Your task to perform on an android device: check storage Image 0: 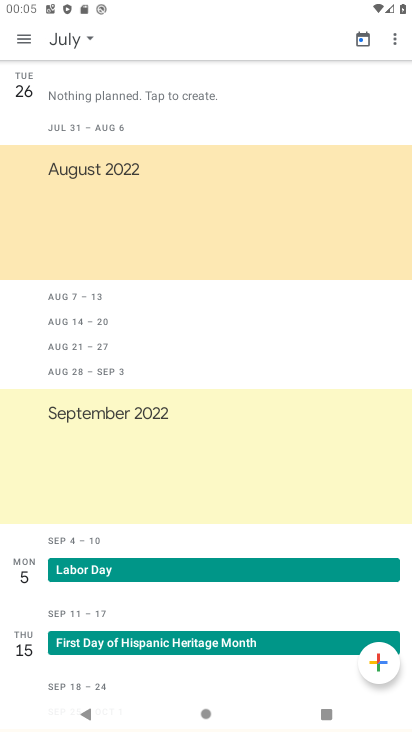
Step 0: press home button
Your task to perform on an android device: check storage Image 1: 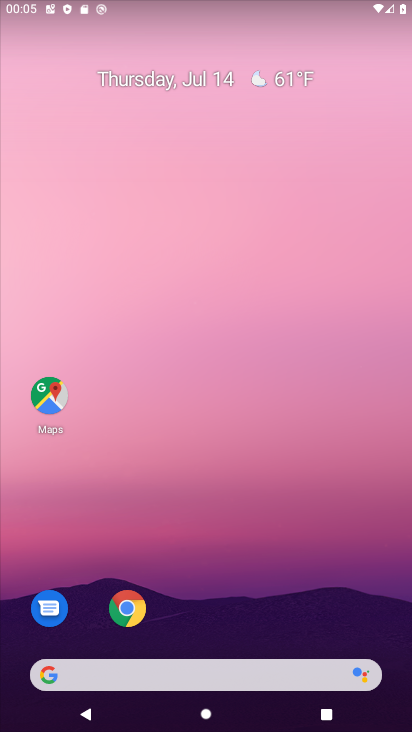
Step 1: drag from (228, 574) to (227, 169)
Your task to perform on an android device: check storage Image 2: 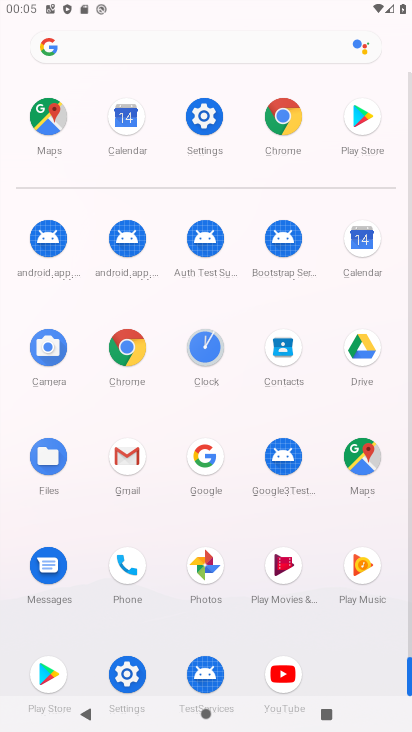
Step 2: drag from (219, 436) to (242, 248)
Your task to perform on an android device: check storage Image 3: 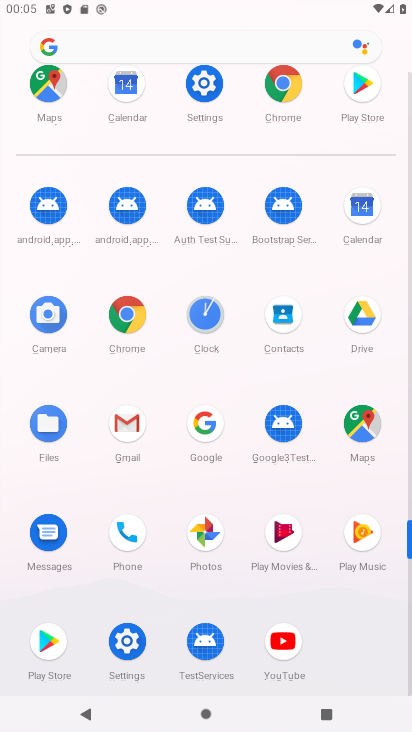
Step 3: drag from (152, 566) to (155, 324)
Your task to perform on an android device: check storage Image 4: 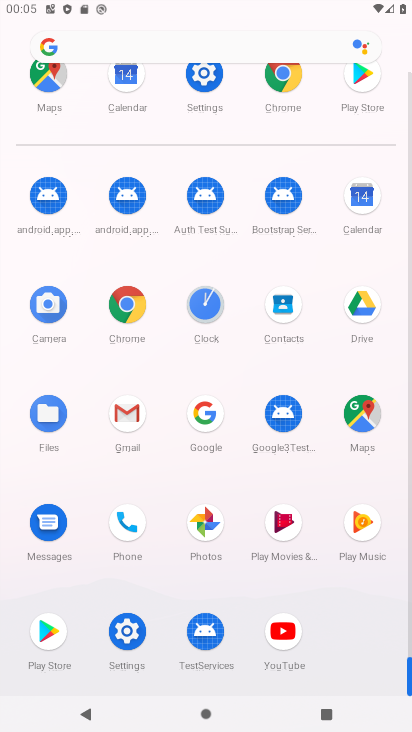
Step 4: drag from (149, 587) to (190, 180)
Your task to perform on an android device: check storage Image 5: 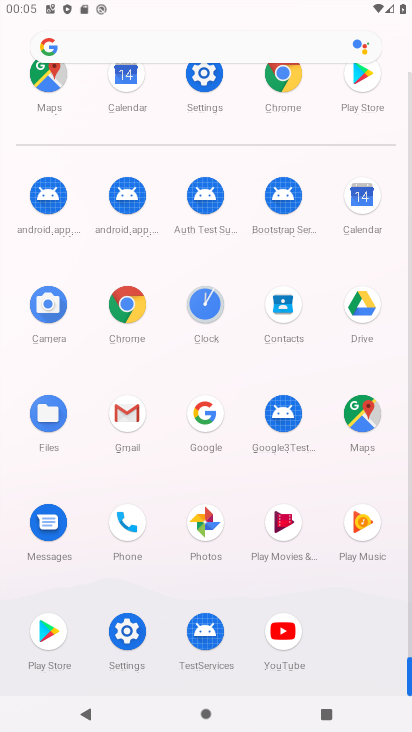
Step 5: drag from (178, 506) to (81, 289)
Your task to perform on an android device: check storage Image 6: 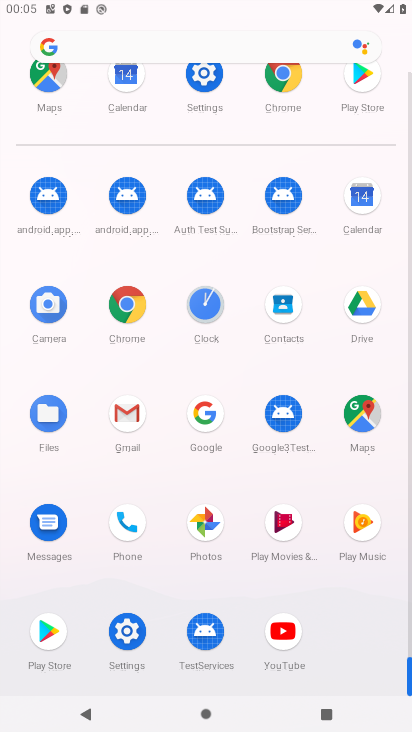
Step 6: click (203, 74)
Your task to perform on an android device: check storage Image 7: 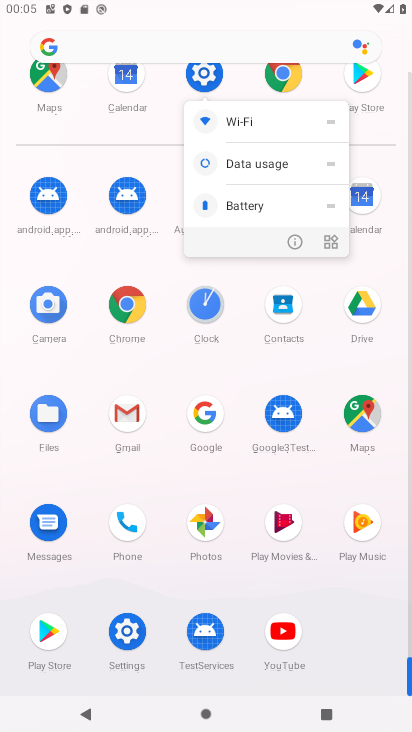
Step 7: click (294, 243)
Your task to perform on an android device: check storage Image 8: 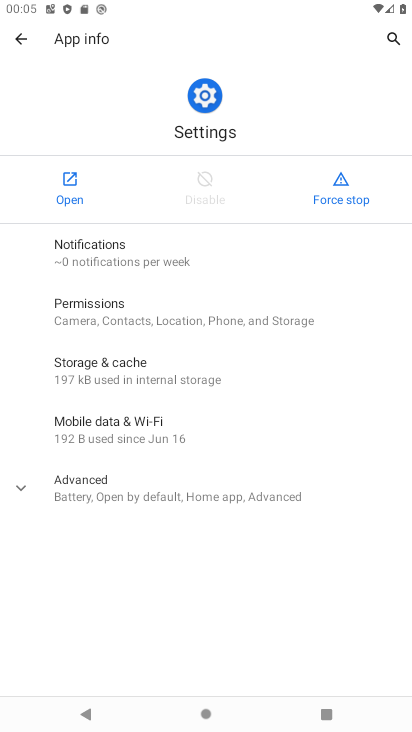
Step 8: click (72, 178)
Your task to perform on an android device: check storage Image 9: 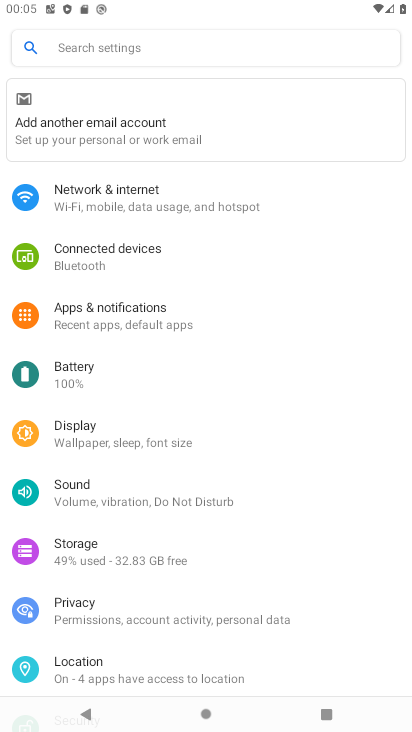
Step 9: click (117, 556)
Your task to perform on an android device: check storage Image 10: 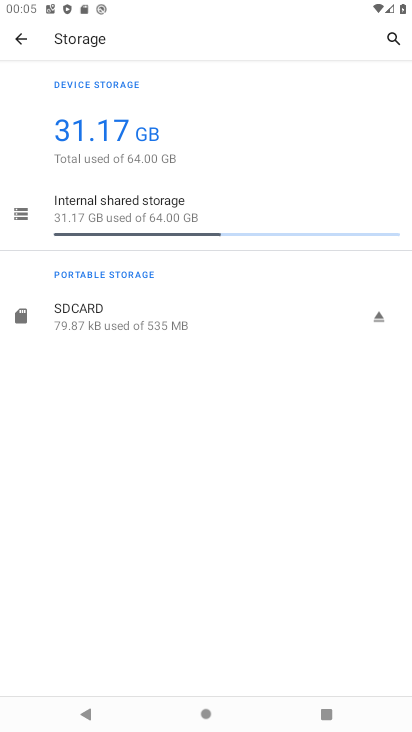
Step 10: drag from (198, 174) to (231, 410)
Your task to perform on an android device: check storage Image 11: 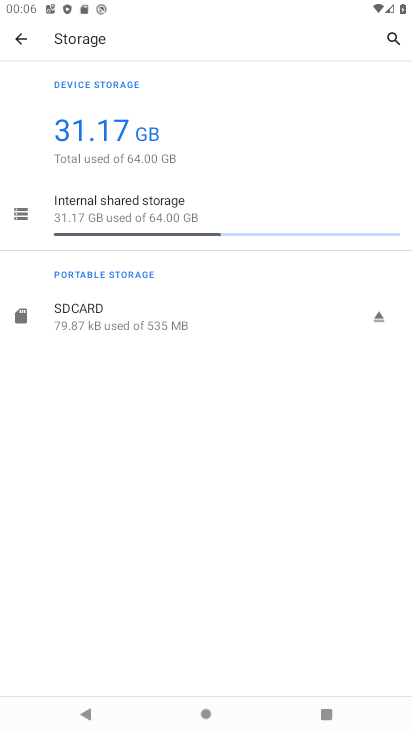
Step 11: click (203, 522)
Your task to perform on an android device: check storage Image 12: 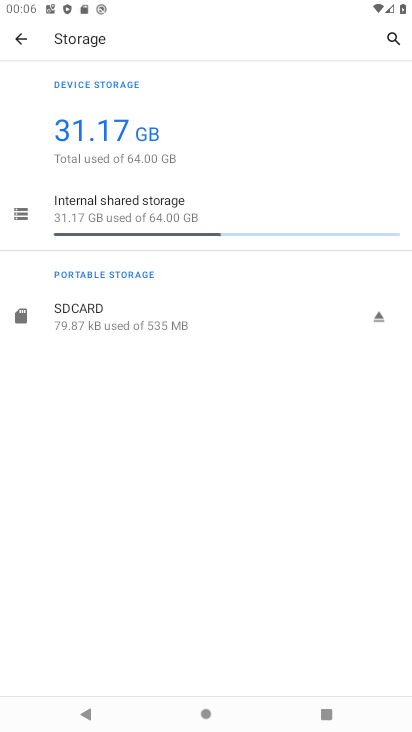
Step 12: task complete